Your task to perform on an android device: toggle improve location accuracy Image 0: 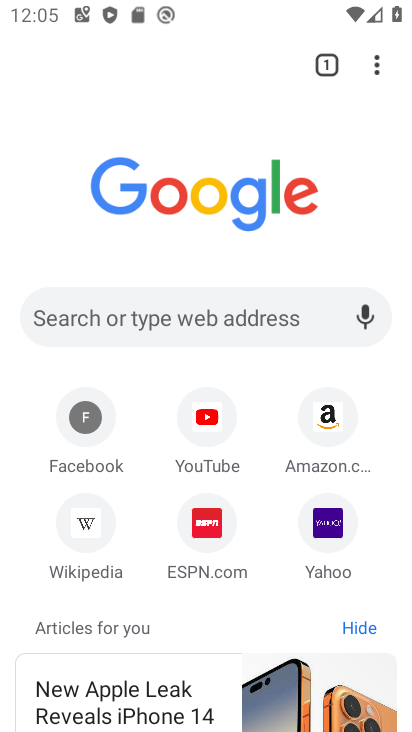
Step 0: press home button
Your task to perform on an android device: toggle improve location accuracy Image 1: 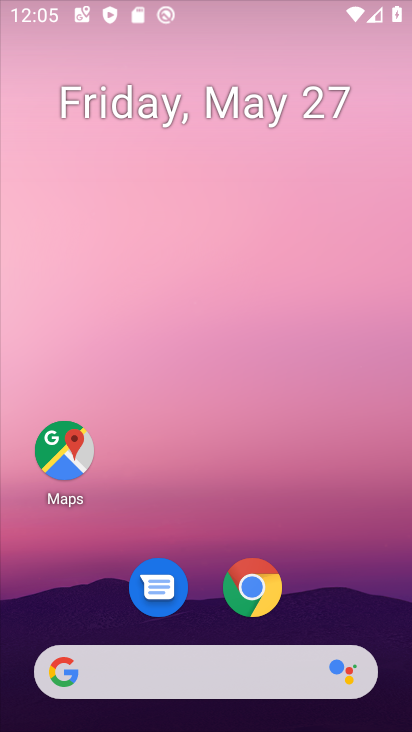
Step 1: drag from (113, 731) to (162, 129)
Your task to perform on an android device: toggle improve location accuracy Image 2: 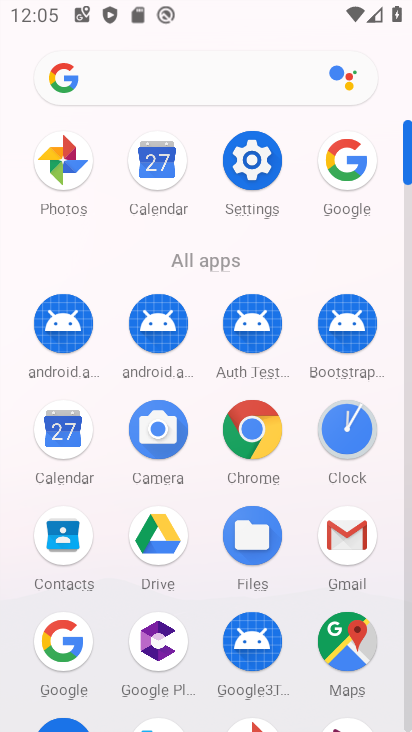
Step 2: click (242, 170)
Your task to perform on an android device: toggle improve location accuracy Image 3: 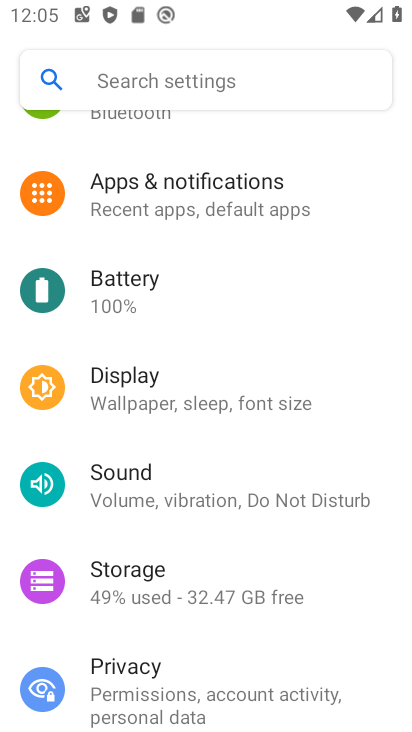
Step 3: drag from (259, 628) to (267, 162)
Your task to perform on an android device: toggle improve location accuracy Image 4: 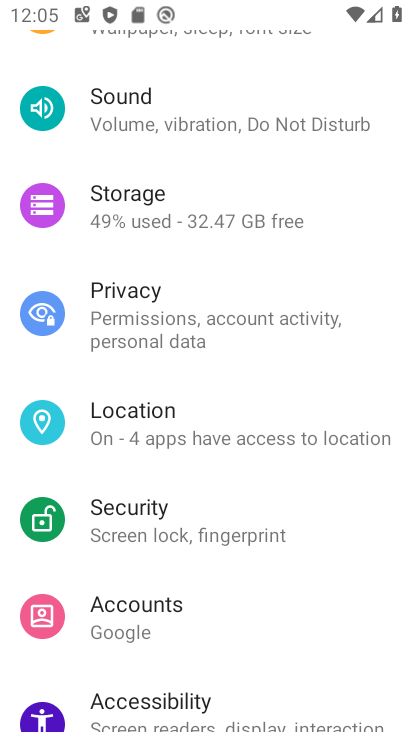
Step 4: click (197, 442)
Your task to perform on an android device: toggle improve location accuracy Image 5: 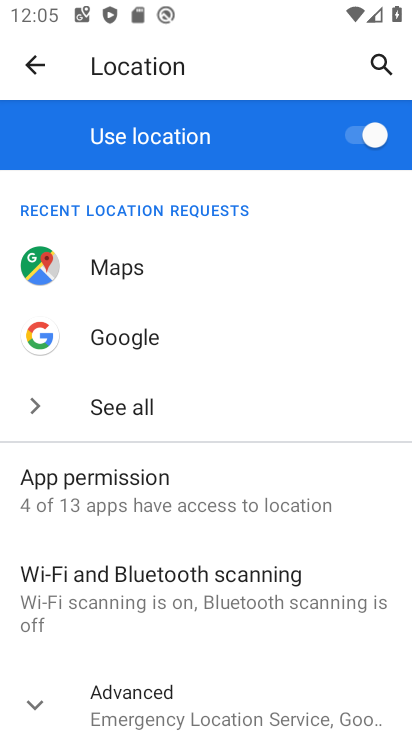
Step 5: drag from (245, 653) to (225, 331)
Your task to perform on an android device: toggle improve location accuracy Image 6: 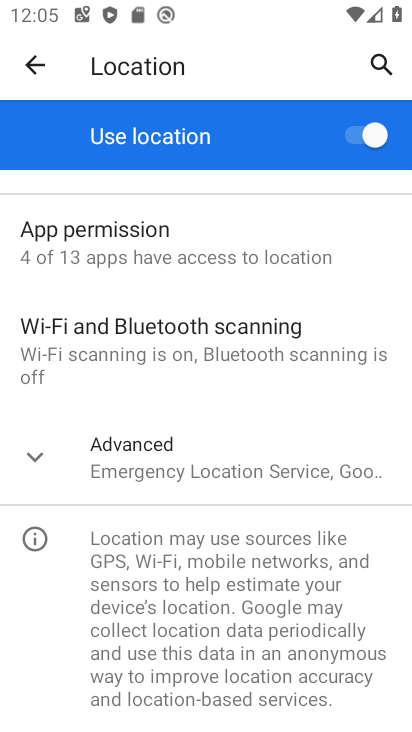
Step 6: click (201, 477)
Your task to perform on an android device: toggle improve location accuracy Image 7: 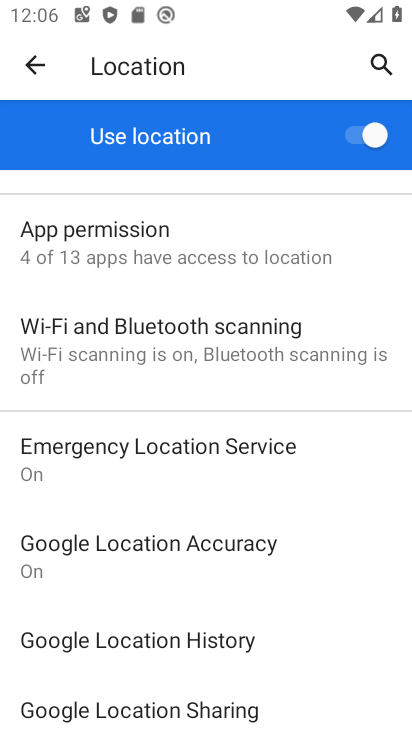
Step 7: click (194, 557)
Your task to perform on an android device: toggle improve location accuracy Image 8: 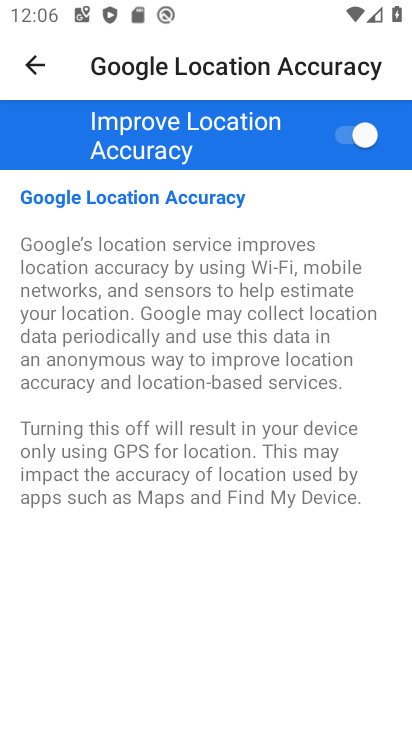
Step 8: click (368, 127)
Your task to perform on an android device: toggle improve location accuracy Image 9: 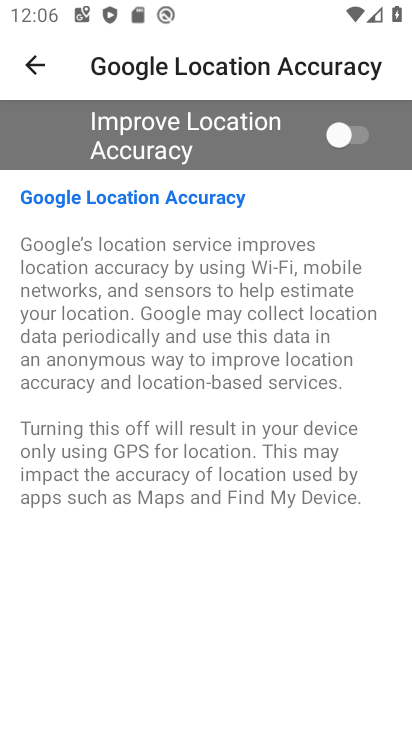
Step 9: task complete